Your task to perform on an android device: Go to display settings Image 0: 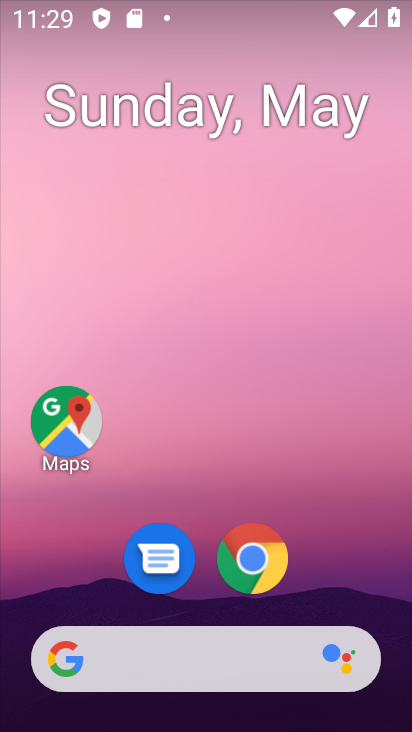
Step 0: drag from (374, 589) to (381, 179)
Your task to perform on an android device: Go to display settings Image 1: 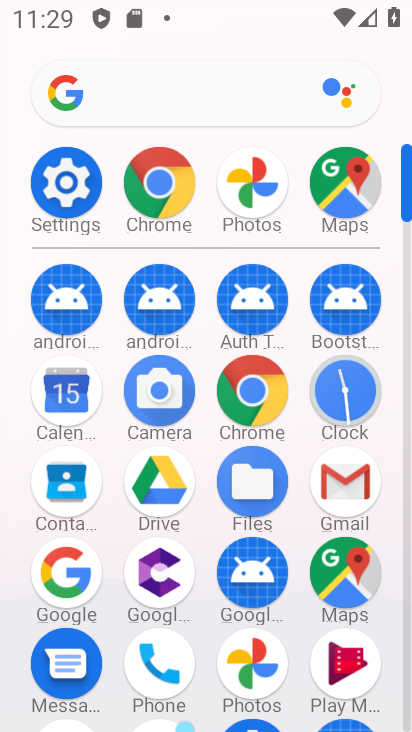
Step 1: click (56, 187)
Your task to perform on an android device: Go to display settings Image 2: 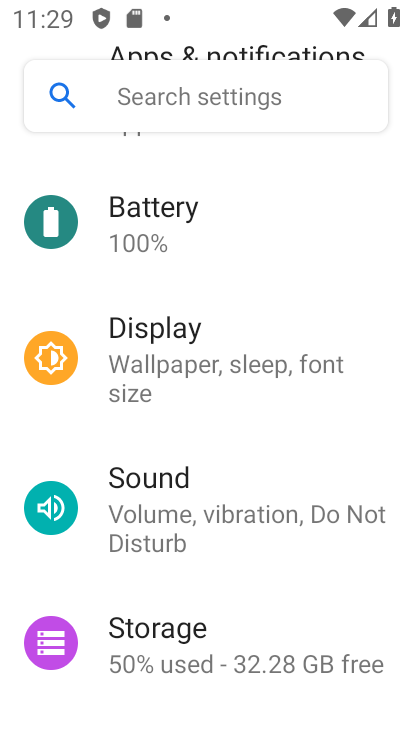
Step 2: drag from (298, 472) to (318, 289)
Your task to perform on an android device: Go to display settings Image 3: 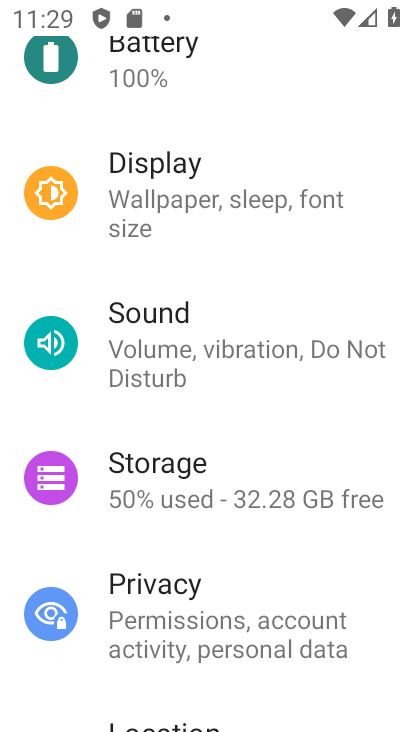
Step 3: drag from (304, 563) to (320, 361)
Your task to perform on an android device: Go to display settings Image 4: 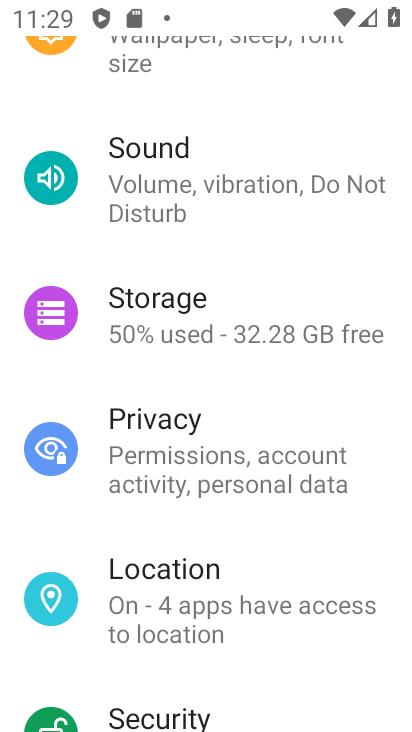
Step 4: drag from (294, 658) to (311, 363)
Your task to perform on an android device: Go to display settings Image 5: 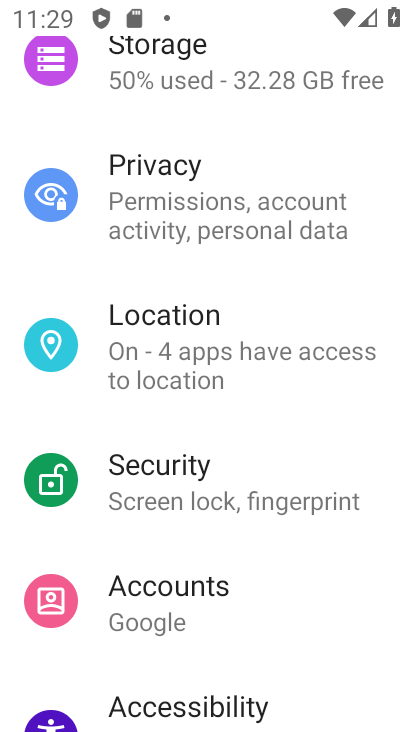
Step 5: drag from (293, 632) to (312, 450)
Your task to perform on an android device: Go to display settings Image 6: 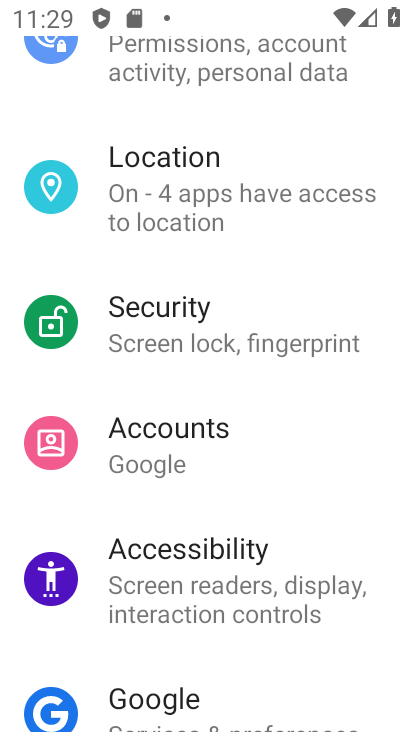
Step 6: drag from (344, 249) to (343, 480)
Your task to perform on an android device: Go to display settings Image 7: 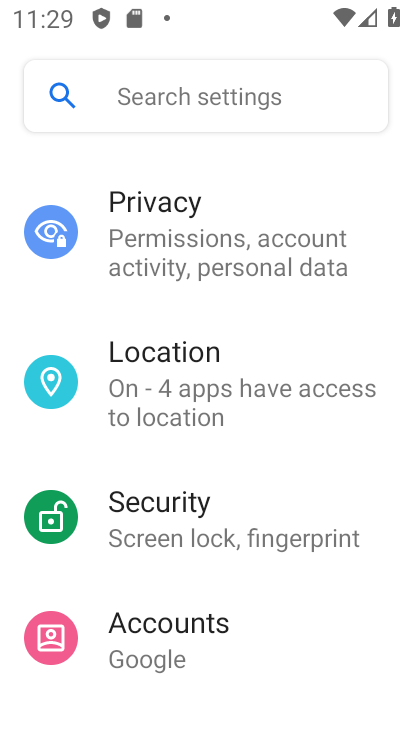
Step 7: drag from (369, 193) to (344, 488)
Your task to perform on an android device: Go to display settings Image 8: 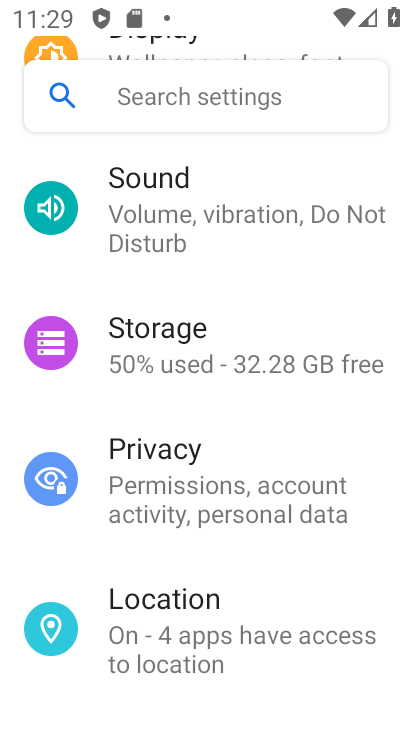
Step 8: drag from (334, 269) to (322, 552)
Your task to perform on an android device: Go to display settings Image 9: 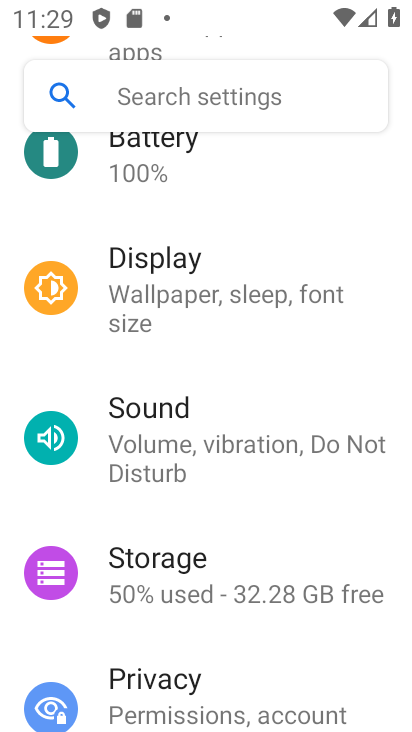
Step 9: drag from (334, 203) to (311, 440)
Your task to perform on an android device: Go to display settings Image 10: 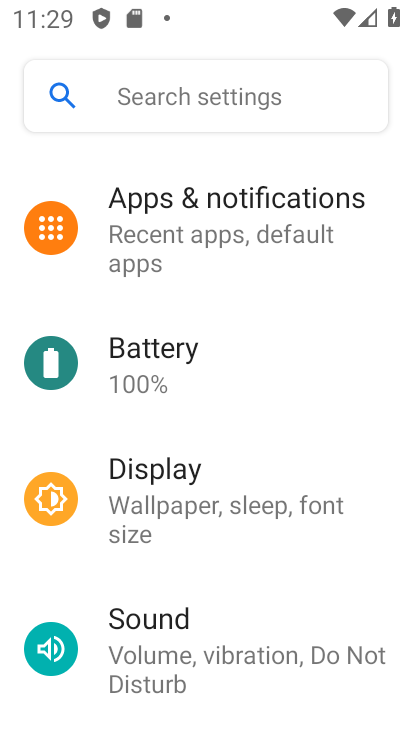
Step 10: click (155, 483)
Your task to perform on an android device: Go to display settings Image 11: 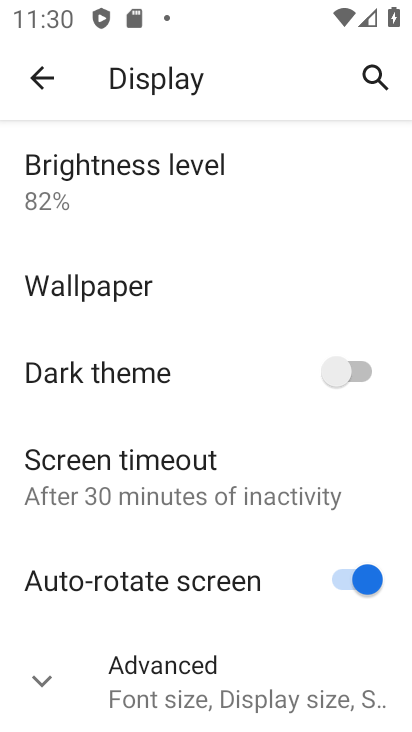
Step 11: task complete